Your task to perform on an android device: Open my contact list Image 0: 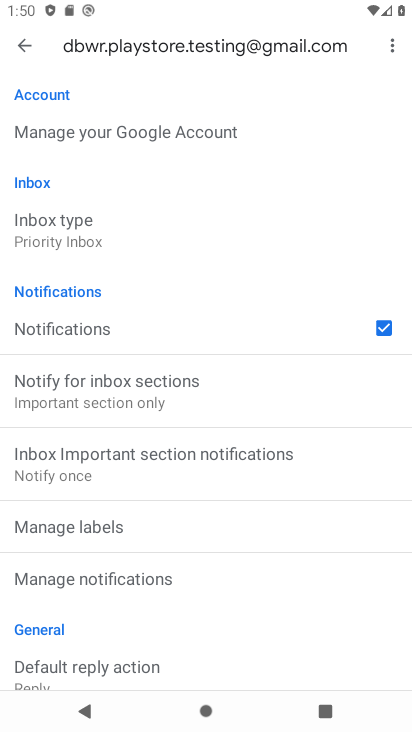
Step 0: press home button
Your task to perform on an android device: Open my contact list Image 1: 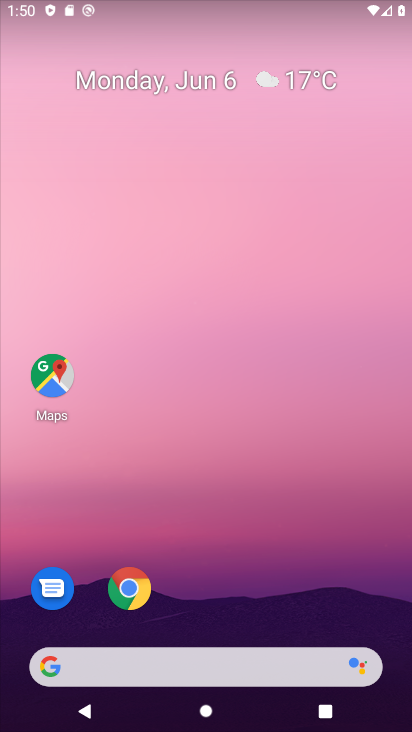
Step 1: drag from (214, 640) to (152, 5)
Your task to perform on an android device: Open my contact list Image 2: 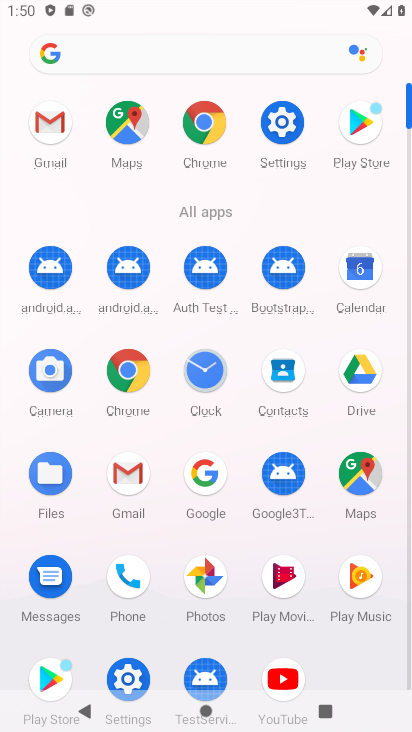
Step 2: click (294, 388)
Your task to perform on an android device: Open my contact list Image 3: 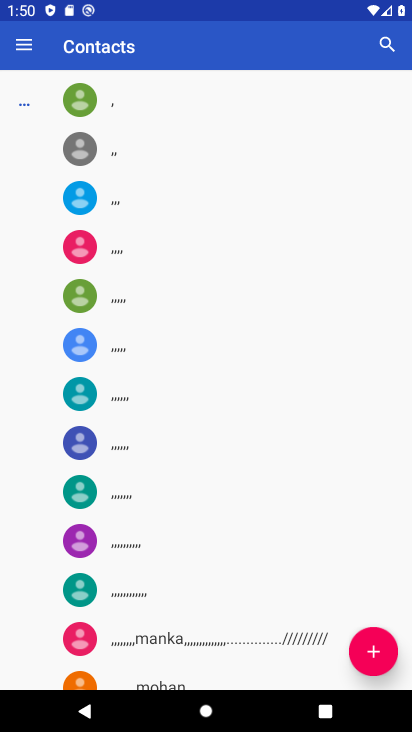
Step 3: task complete